Your task to perform on an android device: stop showing notifications on the lock screen Image 0: 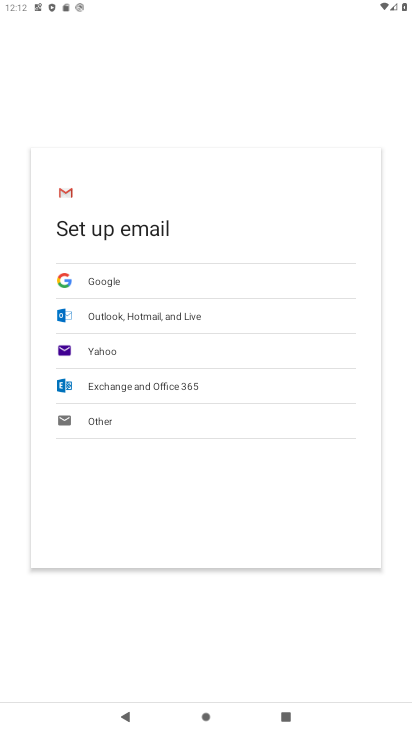
Step 0: press home button
Your task to perform on an android device: stop showing notifications on the lock screen Image 1: 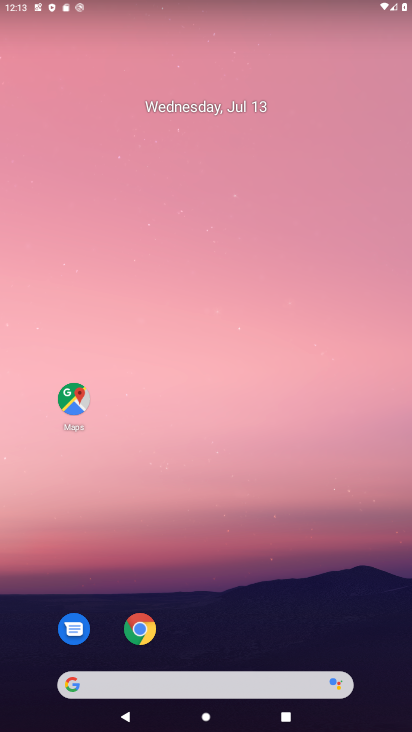
Step 1: drag from (190, 641) to (214, 212)
Your task to perform on an android device: stop showing notifications on the lock screen Image 2: 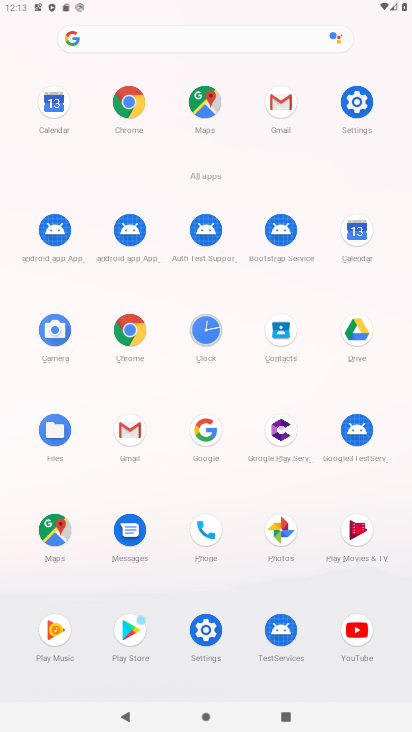
Step 2: click (363, 98)
Your task to perform on an android device: stop showing notifications on the lock screen Image 3: 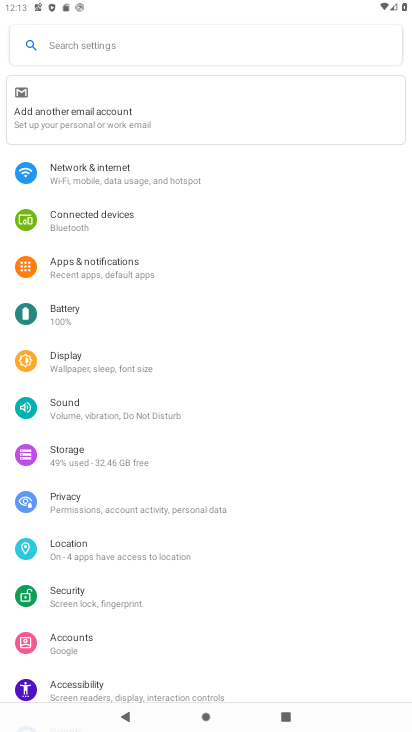
Step 3: click (145, 264)
Your task to perform on an android device: stop showing notifications on the lock screen Image 4: 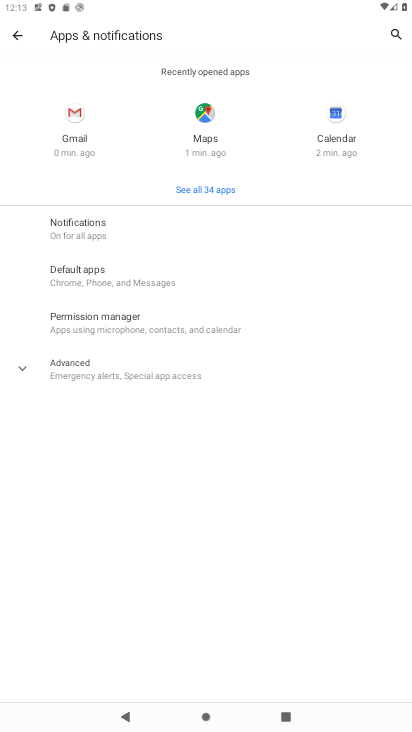
Step 4: click (103, 231)
Your task to perform on an android device: stop showing notifications on the lock screen Image 5: 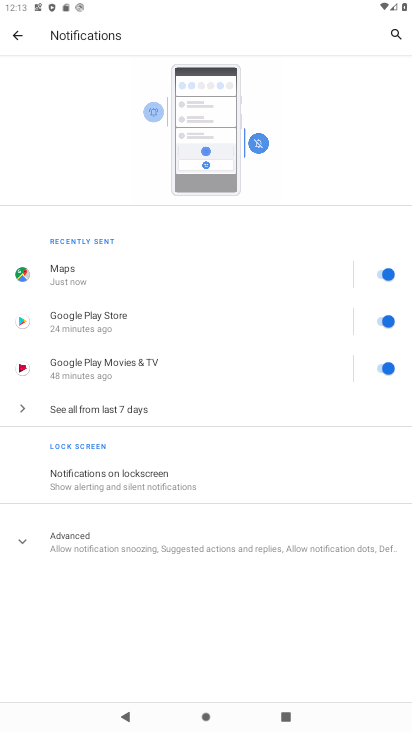
Step 5: click (147, 480)
Your task to perform on an android device: stop showing notifications on the lock screen Image 6: 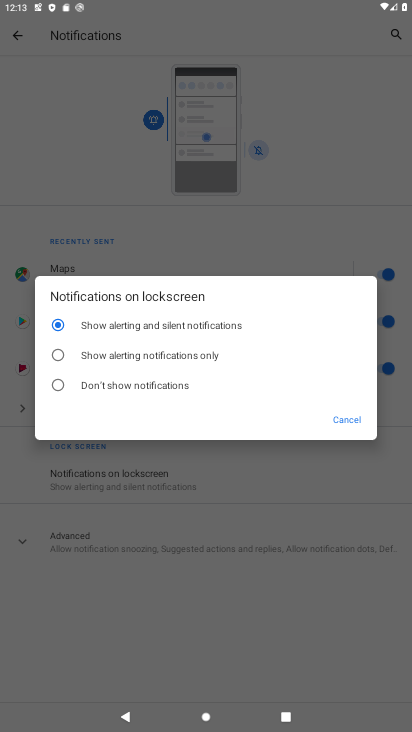
Step 6: click (165, 390)
Your task to perform on an android device: stop showing notifications on the lock screen Image 7: 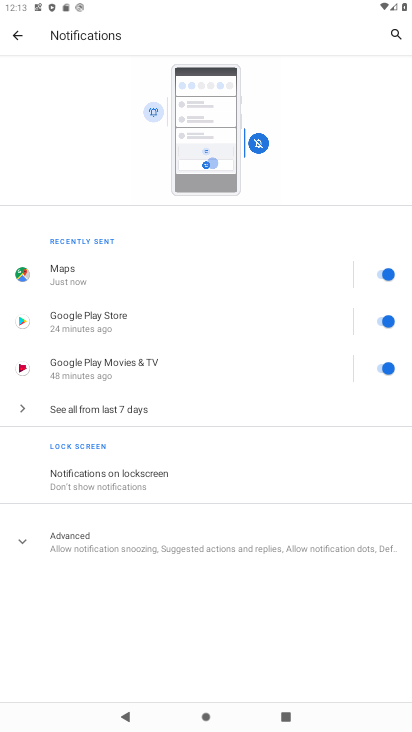
Step 7: task complete